Your task to perform on an android device: stop showing notifications on the lock screen Image 0: 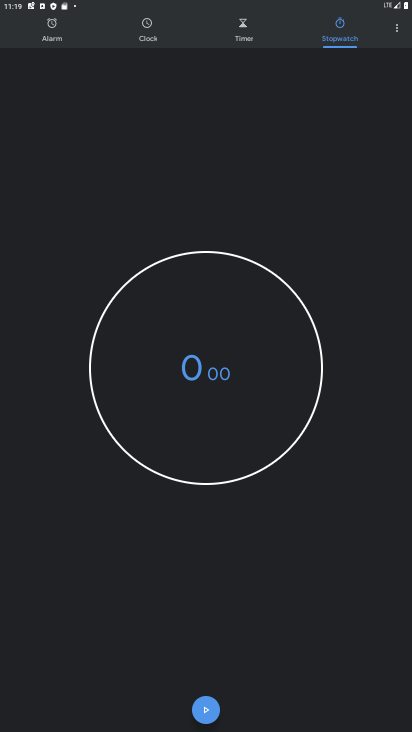
Step 0: press home button
Your task to perform on an android device: stop showing notifications on the lock screen Image 1: 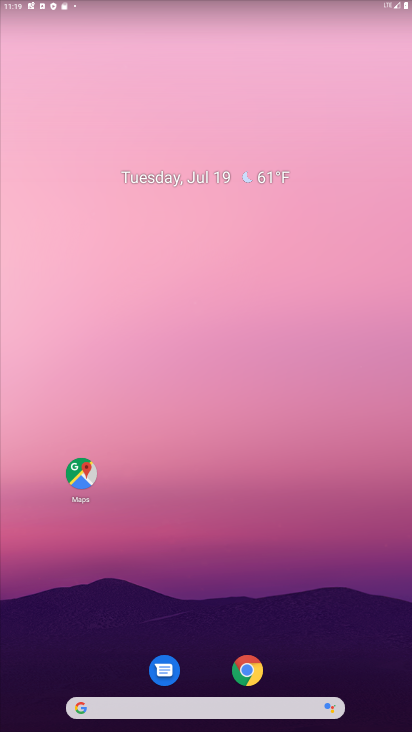
Step 1: drag from (231, 725) to (204, 75)
Your task to perform on an android device: stop showing notifications on the lock screen Image 2: 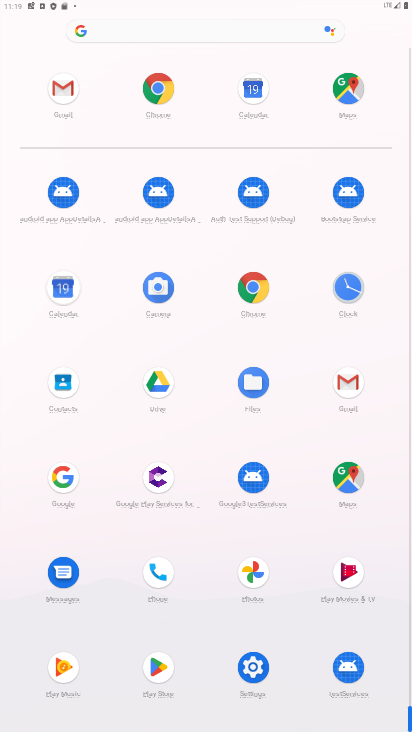
Step 2: click (262, 658)
Your task to perform on an android device: stop showing notifications on the lock screen Image 3: 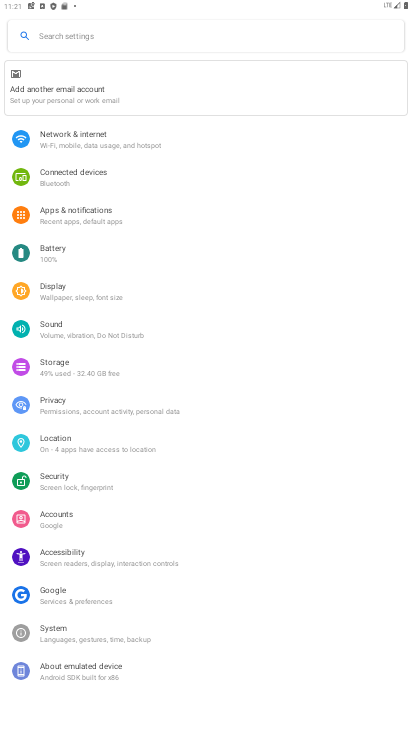
Step 3: click (118, 218)
Your task to perform on an android device: stop showing notifications on the lock screen Image 4: 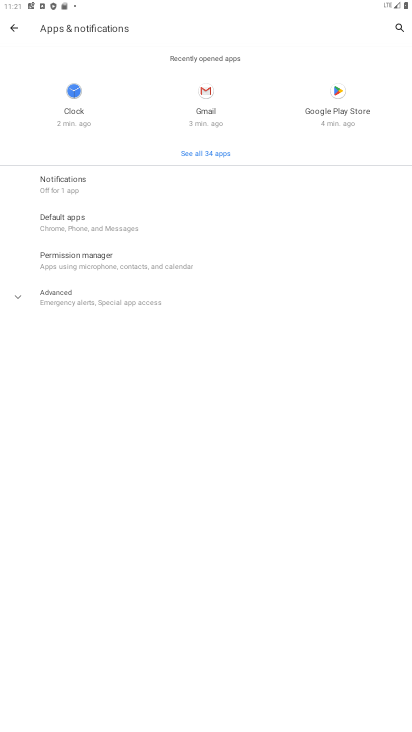
Step 4: click (85, 184)
Your task to perform on an android device: stop showing notifications on the lock screen Image 5: 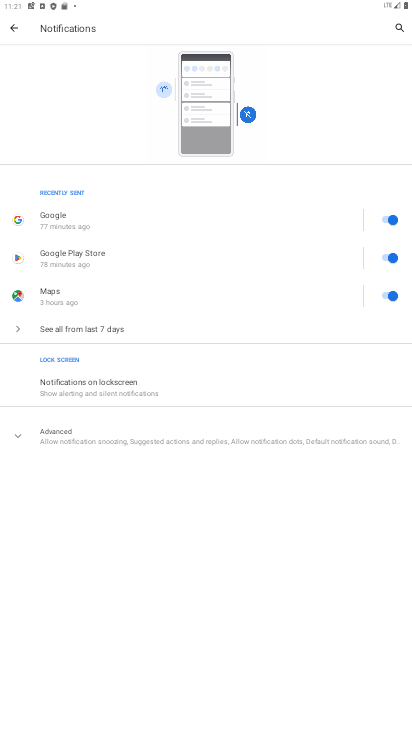
Step 5: click (165, 380)
Your task to perform on an android device: stop showing notifications on the lock screen Image 6: 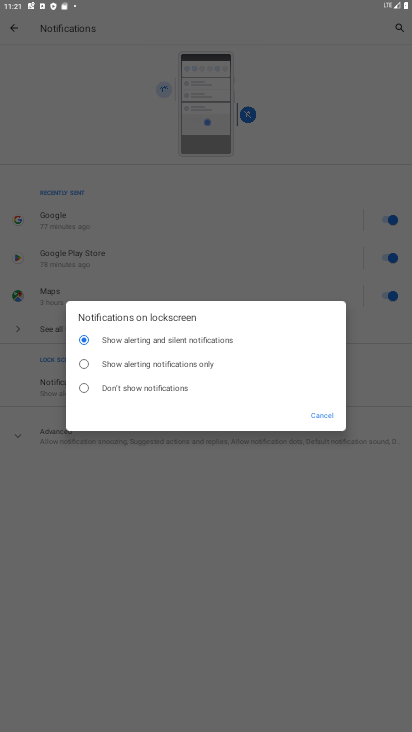
Step 6: click (184, 381)
Your task to perform on an android device: stop showing notifications on the lock screen Image 7: 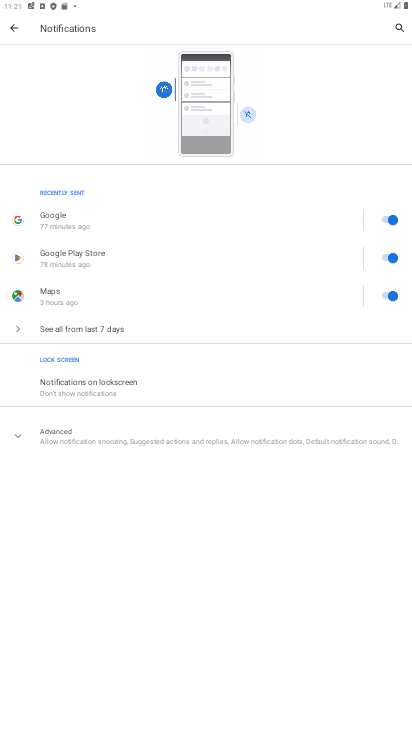
Step 7: task complete